Your task to perform on an android device: change notifications settings Image 0: 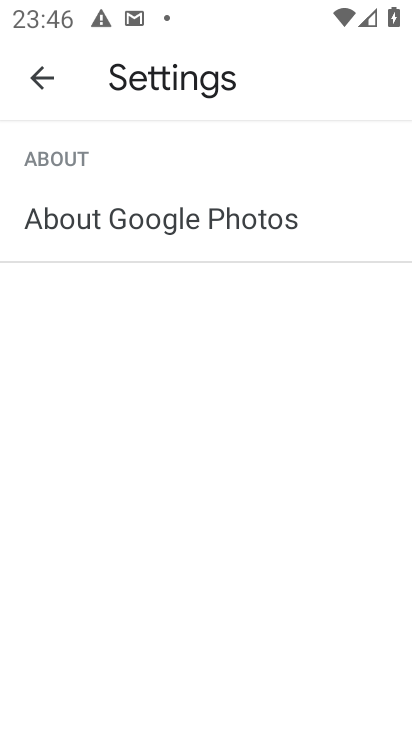
Step 0: press home button
Your task to perform on an android device: change notifications settings Image 1: 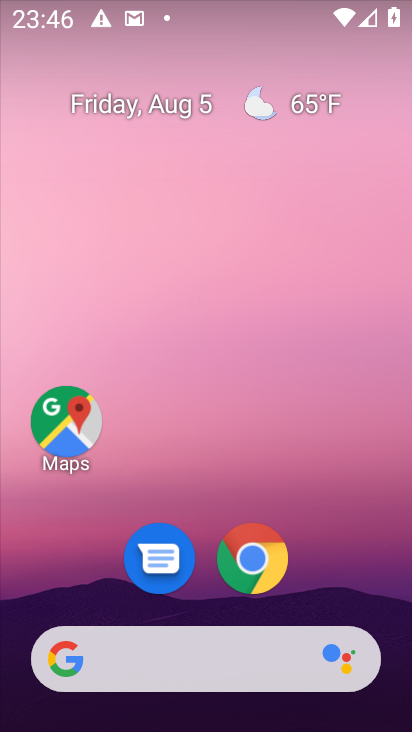
Step 1: drag from (374, 563) to (406, 233)
Your task to perform on an android device: change notifications settings Image 2: 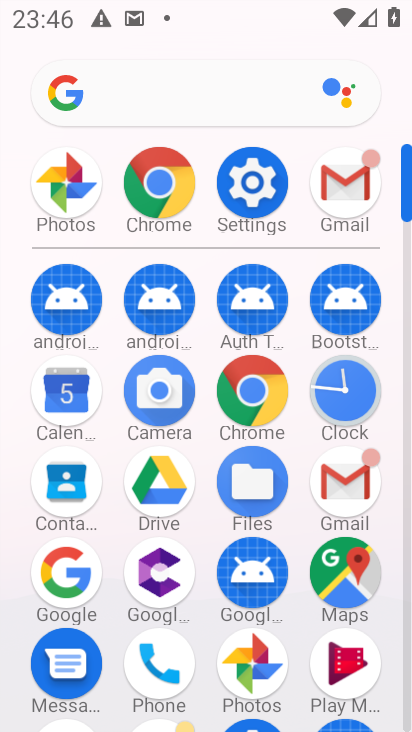
Step 2: click (251, 182)
Your task to perform on an android device: change notifications settings Image 3: 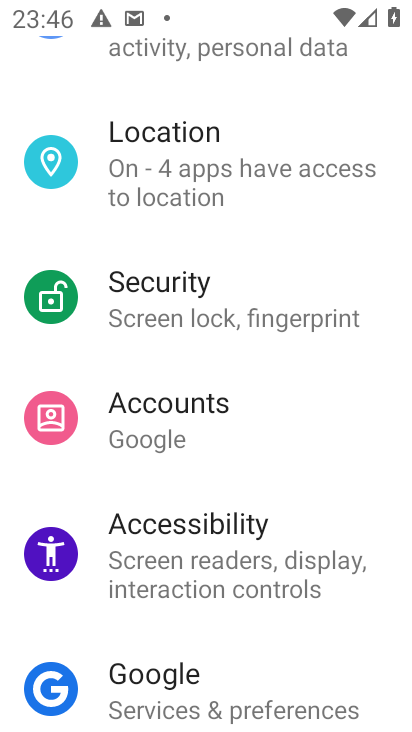
Step 3: drag from (311, 222) to (326, 320)
Your task to perform on an android device: change notifications settings Image 4: 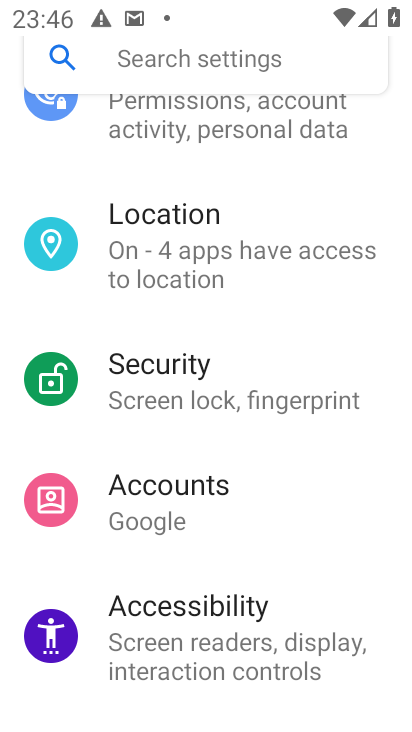
Step 4: drag from (365, 150) to (356, 259)
Your task to perform on an android device: change notifications settings Image 5: 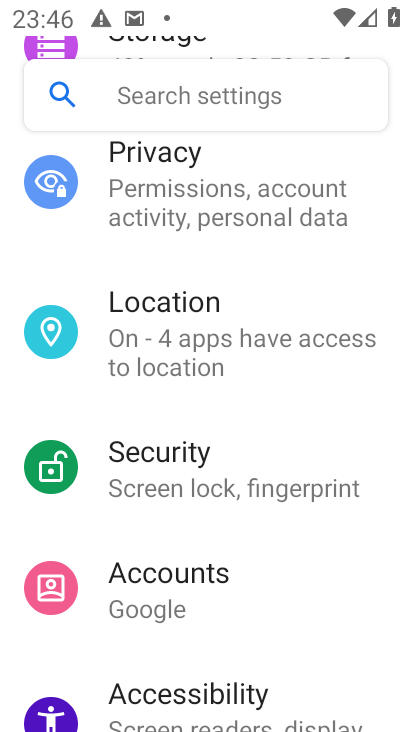
Step 5: drag from (379, 199) to (382, 360)
Your task to perform on an android device: change notifications settings Image 6: 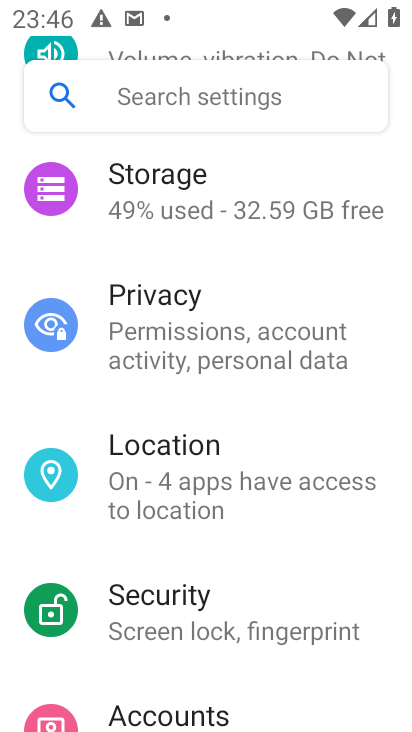
Step 6: drag from (371, 229) to (373, 345)
Your task to perform on an android device: change notifications settings Image 7: 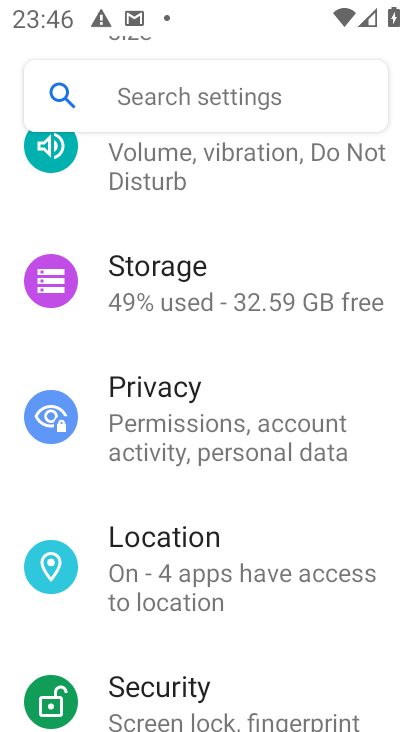
Step 7: drag from (373, 195) to (375, 334)
Your task to perform on an android device: change notifications settings Image 8: 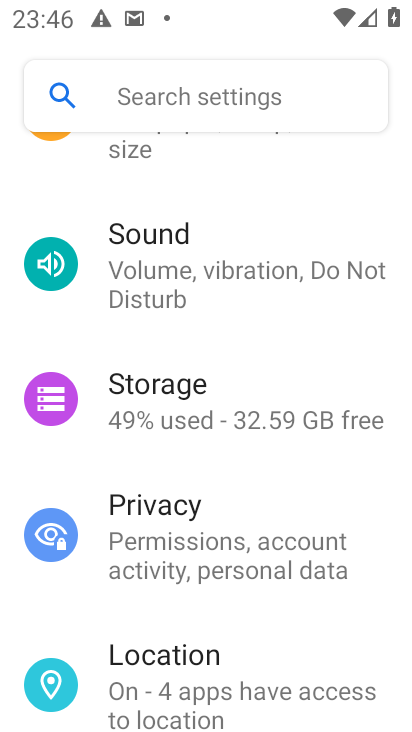
Step 8: drag from (352, 178) to (354, 334)
Your task to perform on an android device: change notifications settings Image 9: 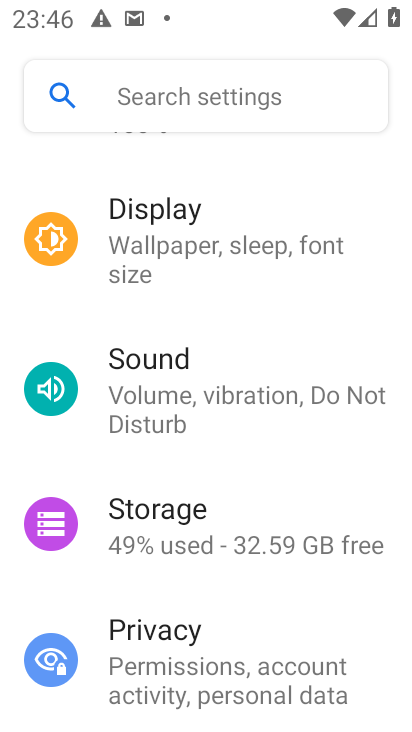
Step 9: drag from (366, 177) to (362, 310)
Your task to perform on an android device: change notifications settings Image 10: 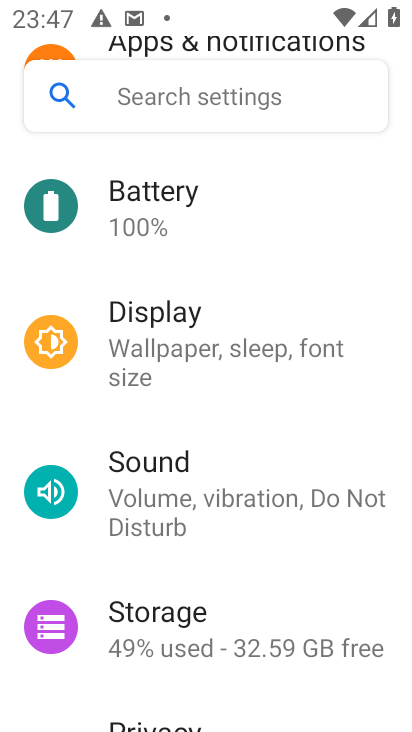
Step 10: drag from (358, 225) to (355, 315)
Your task to perform on an android device: change notifications settings Image 11: 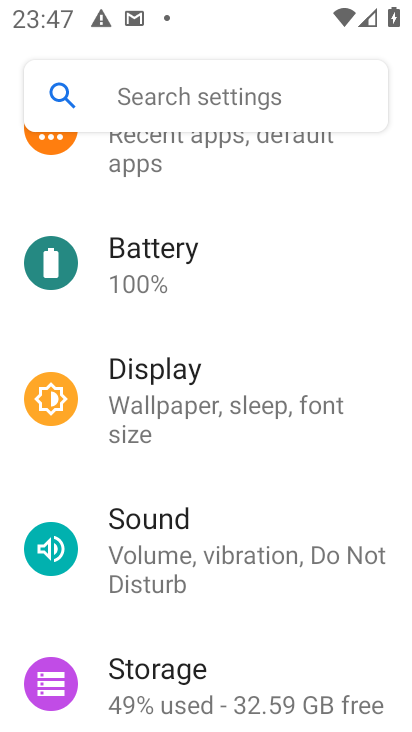
Step 11: drag from (348, 182) to (352, 335)
Your task to perform on an android device: change notifications settings Image 12: 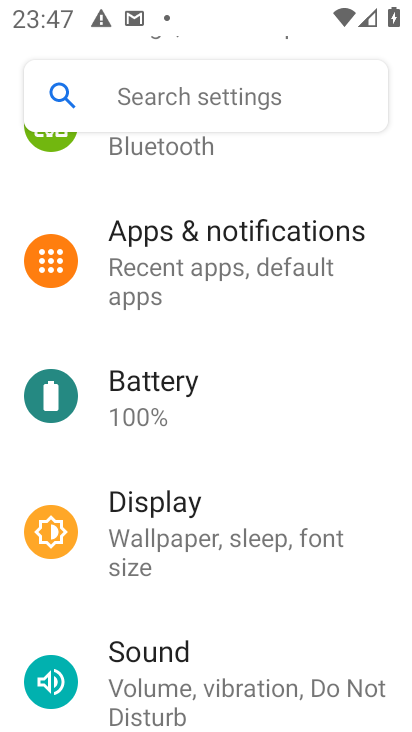
Step 12: click (289, 246)
Your task to perform on an android device: change notifications settings Image 13: 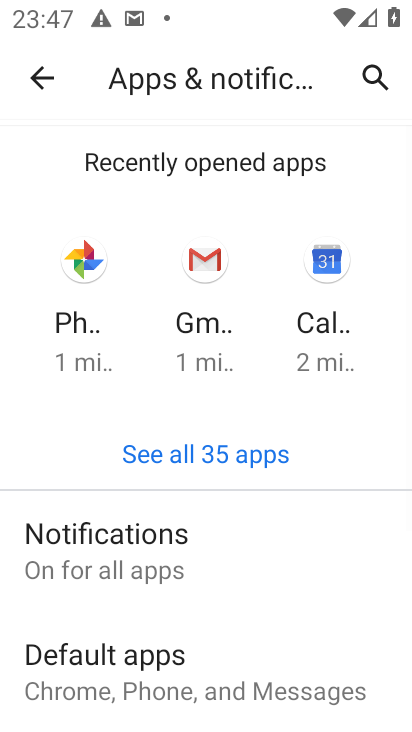
Step 13: click (282, 559)
Your task to perform on an android device: change notifications settings Image 14: 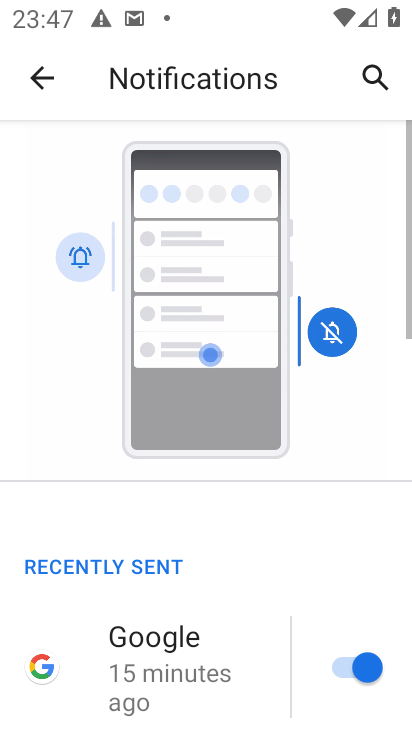
Step 14: drag from (283, 560) to (277, 416)
Your task to perform on an android device: change notifications settings Image 15: 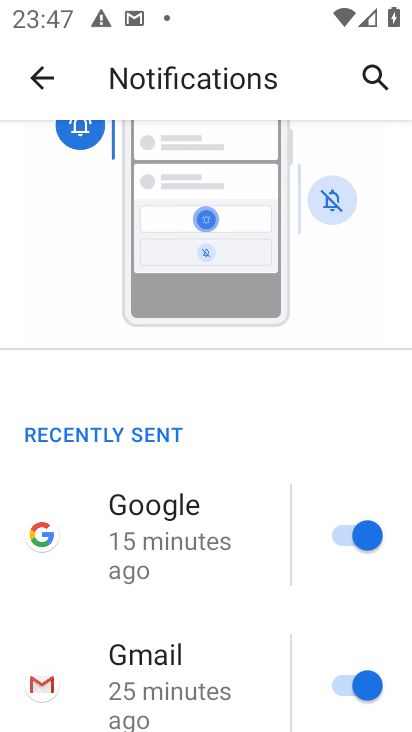
Step 15: drag from (249, 557) to (251, 424)
Your task to perform on an android device: change notifications settings Image 16: 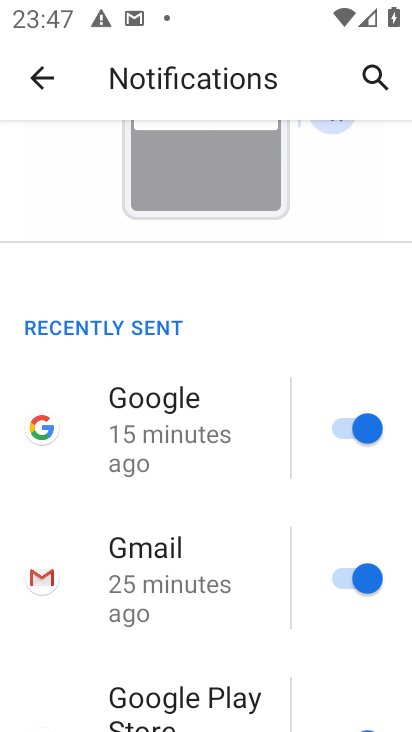
Step 16: drag from (251, 585) to (256, 409)
Your task to perform on an android device: change notifications settings Image 17: 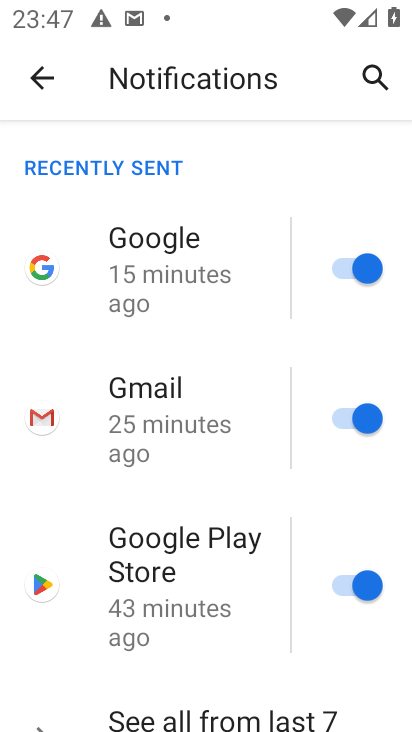
Step 17: click (367, 263)
Your task to perform on an android device: change notifications settings Image 18: 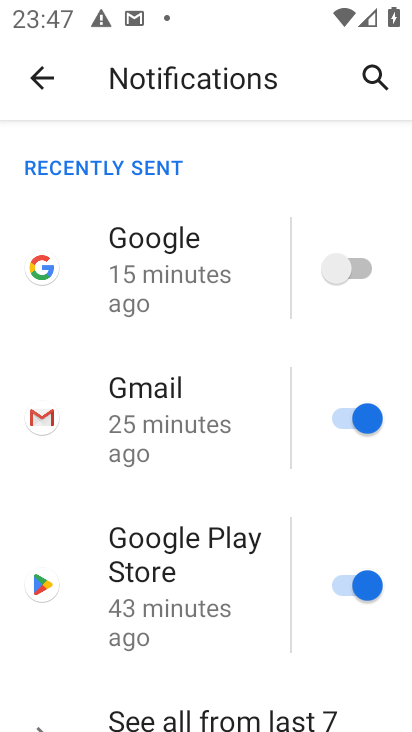
Step 18: click (371, 425)
Your task to perform on an android device: change notifications settings Image 19: 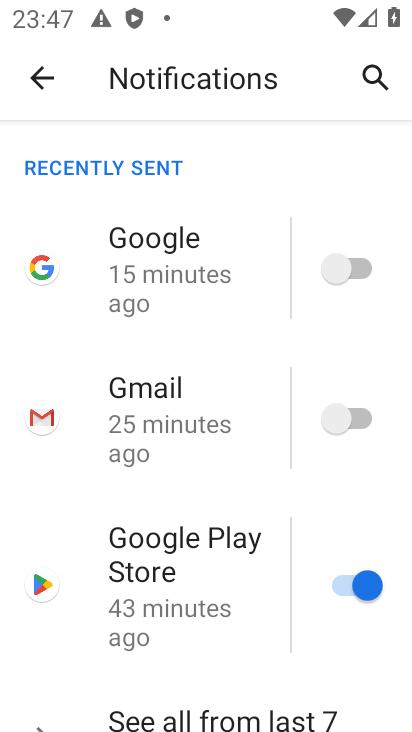
Step 19: click (370, 594)
Your task to perform on an android device: change notifications settings Image 20: 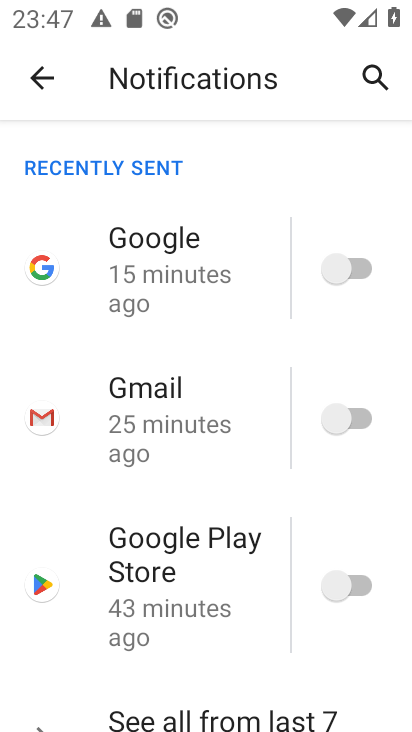
Step 20: task complete